Your task to perform on an android device: See recent photos Image 0: 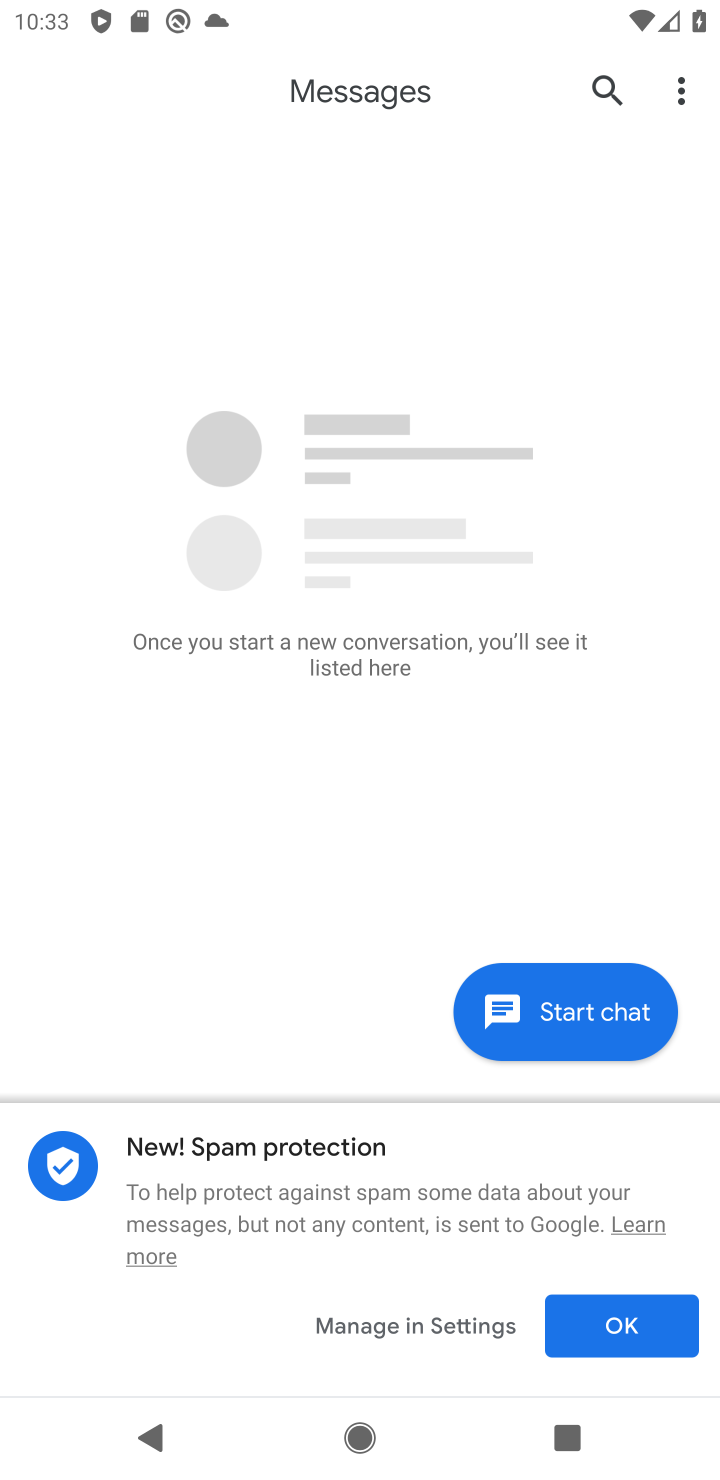
Step 0: press home button
Your task to perform on an android device: See recent photos Image 1: 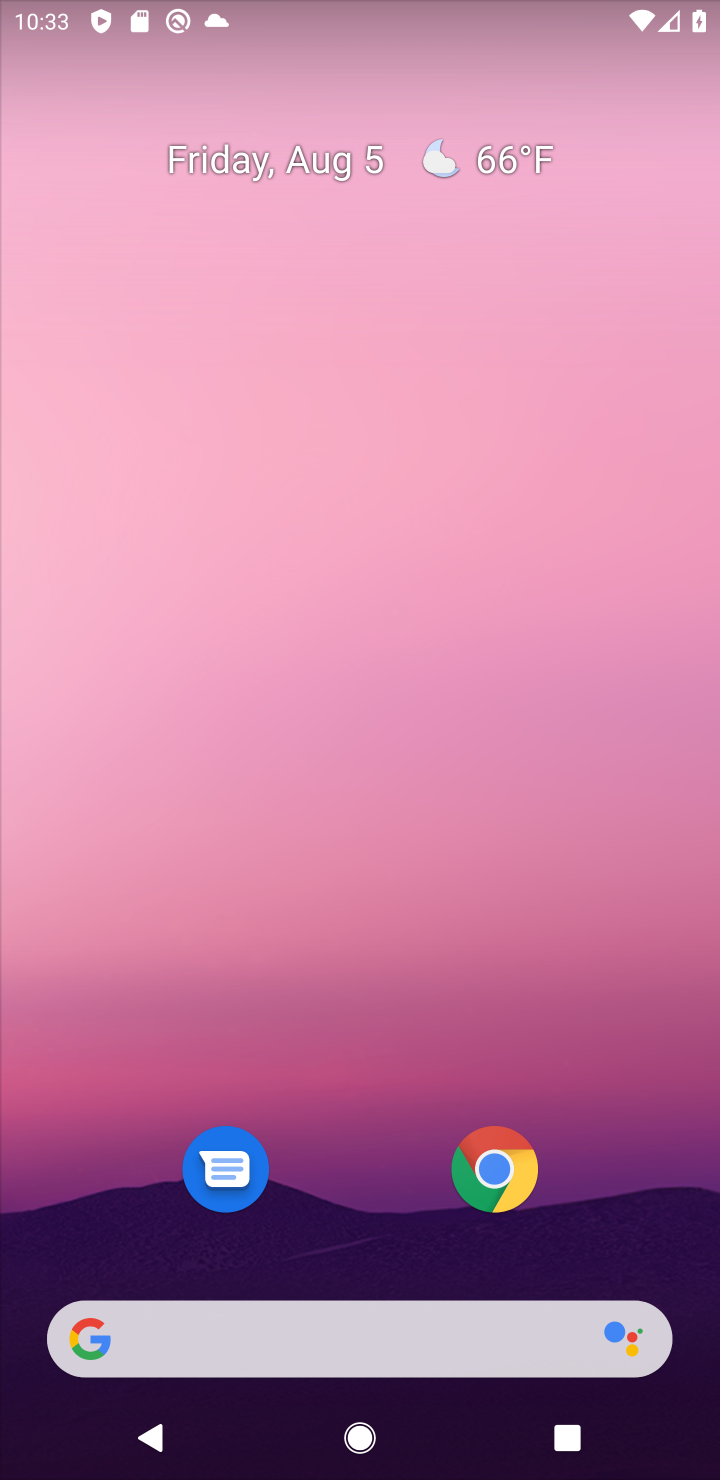
Step 1: drag from (635, 1253) to (586, 204)
Your task to perform on an android device: See recent photos Image 2: 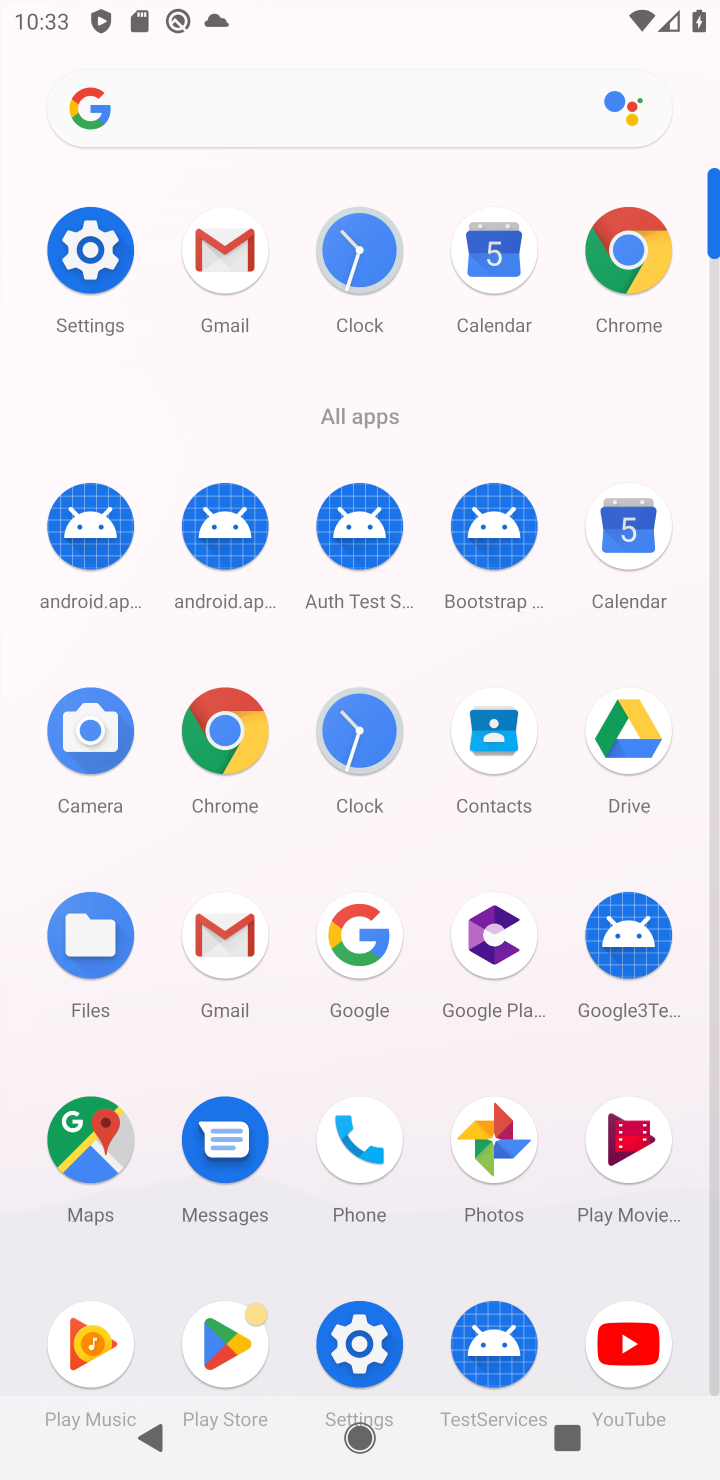
Step 2: click (489, 1146)
Your task to perform on an android device: See recent photos Image 3: 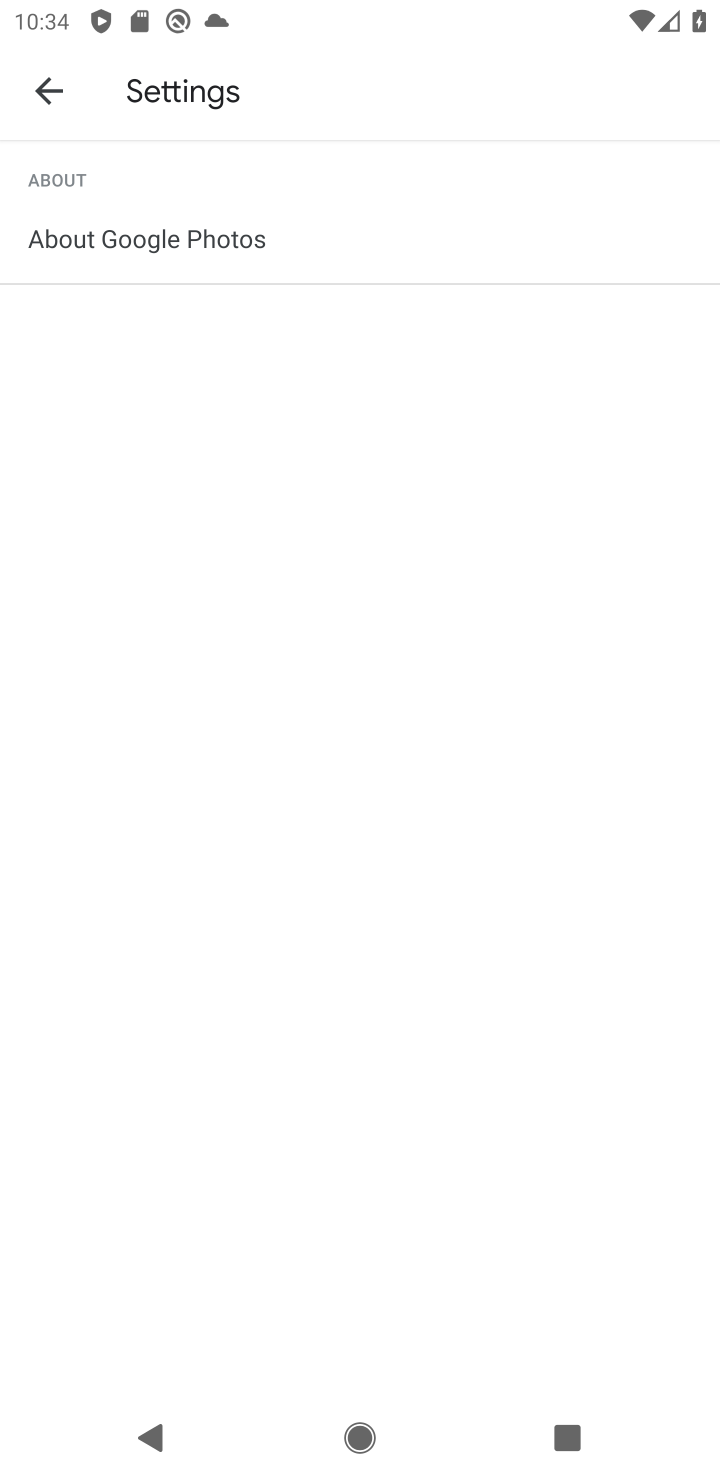
Step 3: press back button
Your task to perform on an android device: See recent photos Image 4: 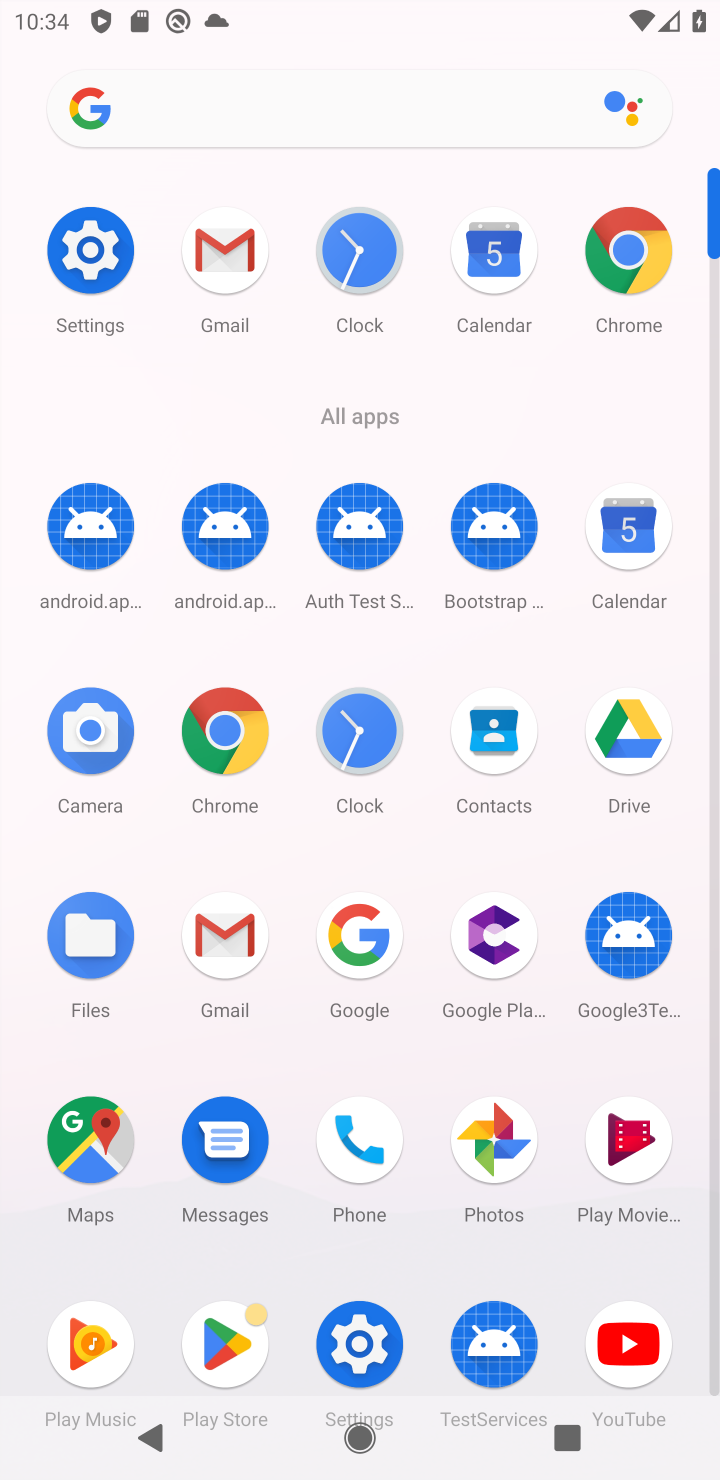
Step 4: click (492, 1139)
Your task to perform on an android device: See recent photos Image 5: 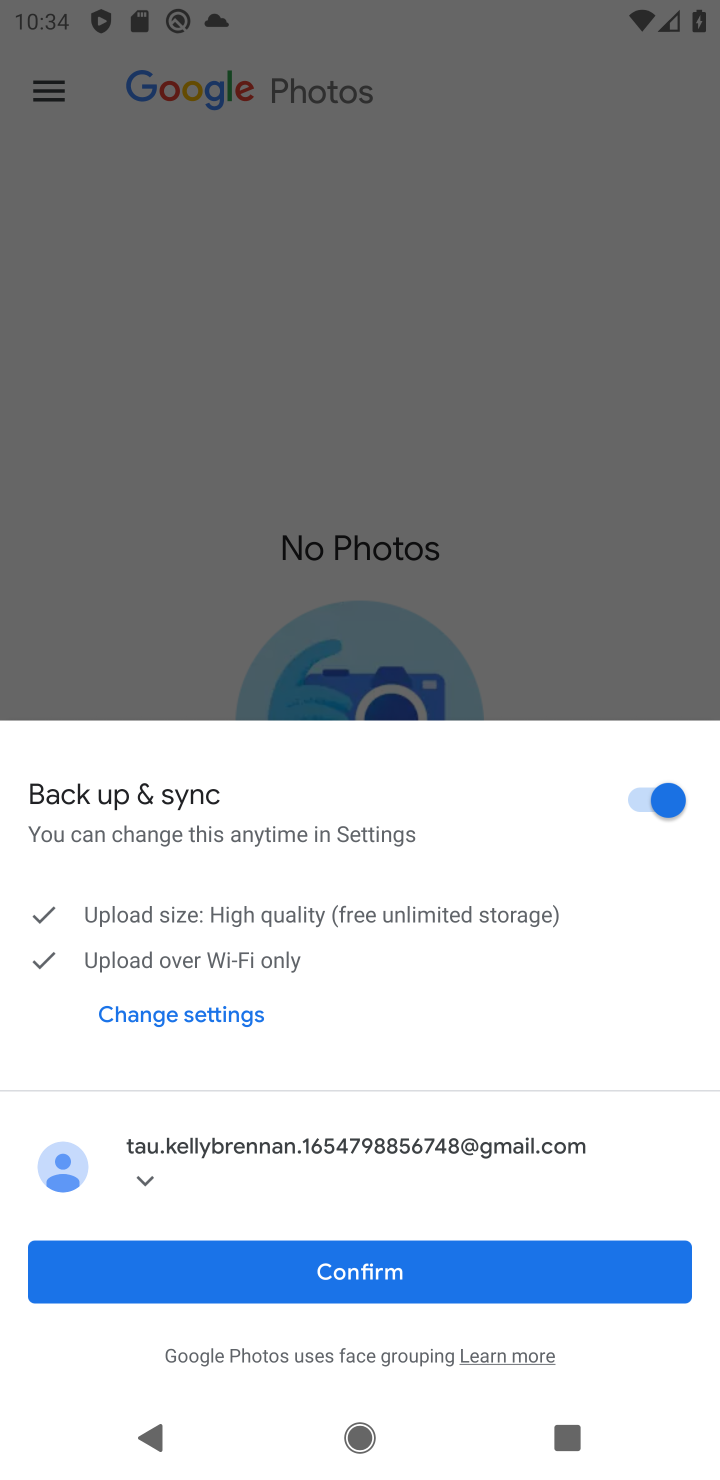
Step 5: click (366, 1269)
Your task to perform on an android device: See recent photos Image 6: 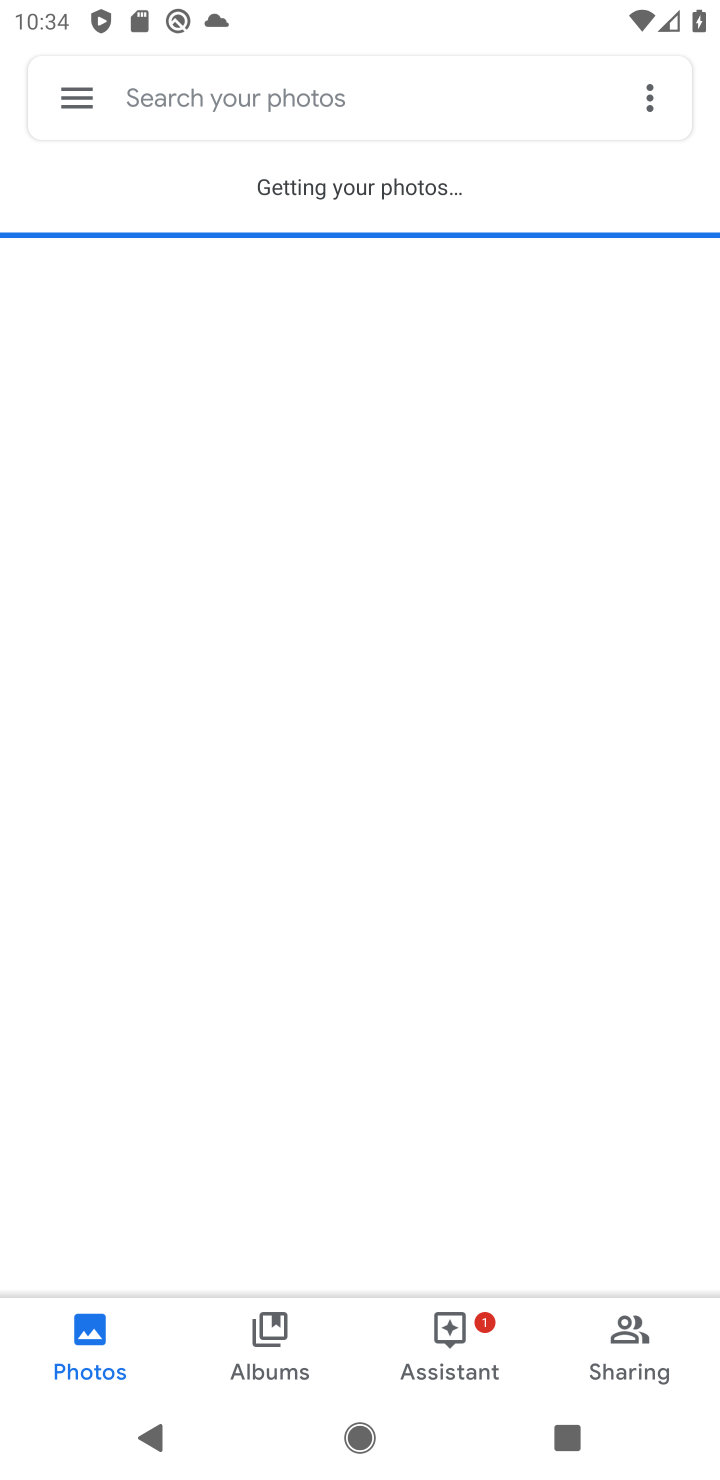
Step 6: task complete